Your task to perform on an android device: Show me productivity apps on the Play Store Image 0: 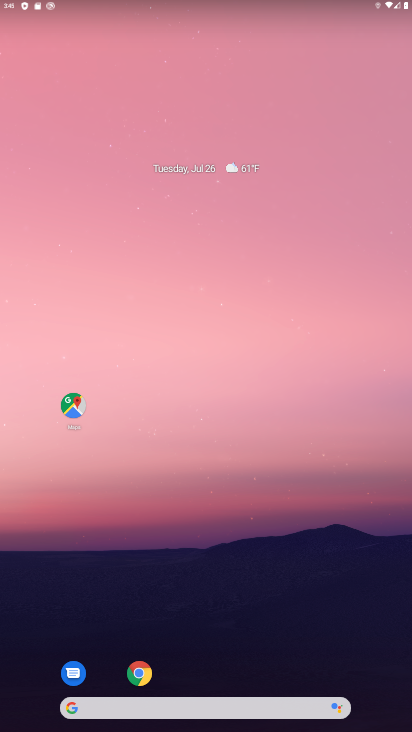
Step 0: press home button
Your task to perform on an android device: Show me productivity apps on the Play Store Image 1: 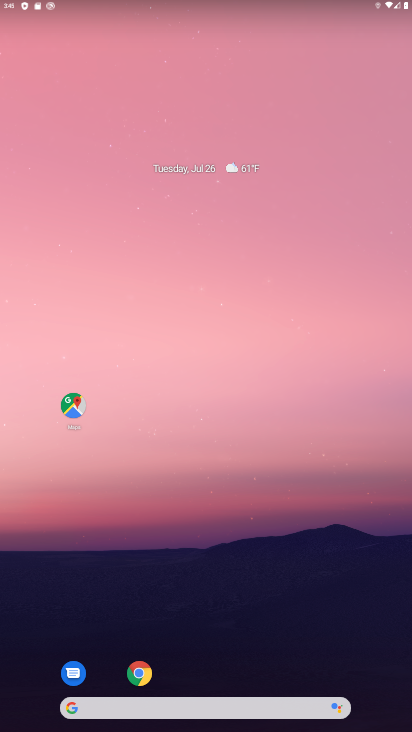
Step 1: drag from (193, 680) to (188, 69)
Your task to perform on an android device: Show me productivity apps on the Play Store Image 2: 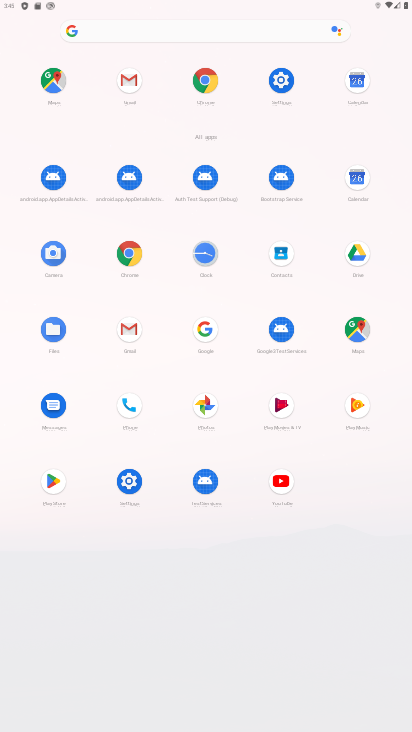
Step 2: click (47, 480)
Your task to perform on an android device: Show me productivity apps on the Play Store Image 3: 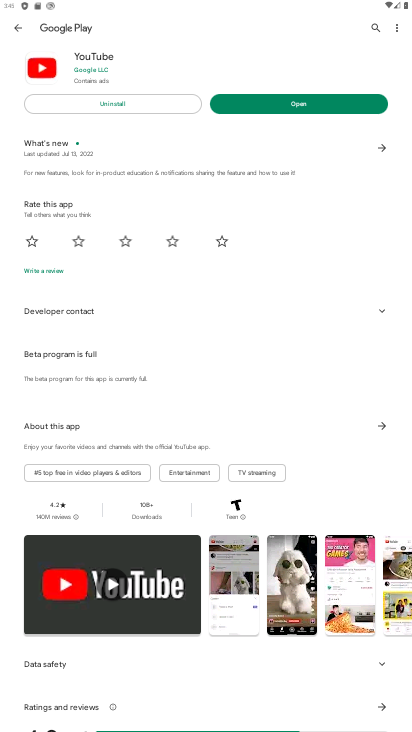
Step 3: click (120, 96)
Your task to perform on an android device: Show me productivity apps on the Play Store Image 4: 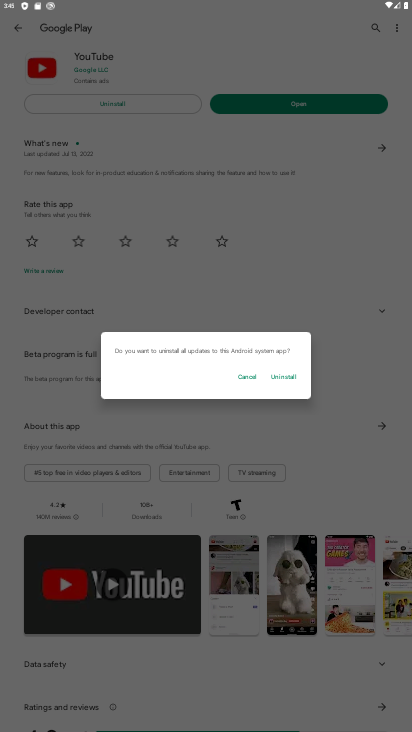
Step 4: click (242, 377)
Your task to perform on an android device: Show me productivity apps on the Play Store Image 5: 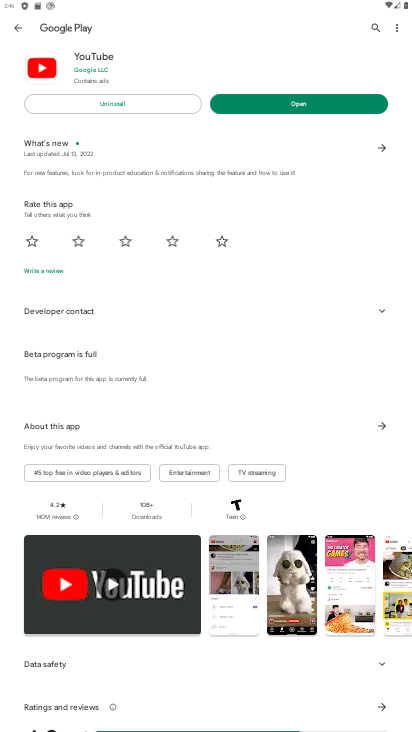
Step 5: click (17, 24)
Your task to perform on an android device: Show me productivity apps on the Play Store Image 6: 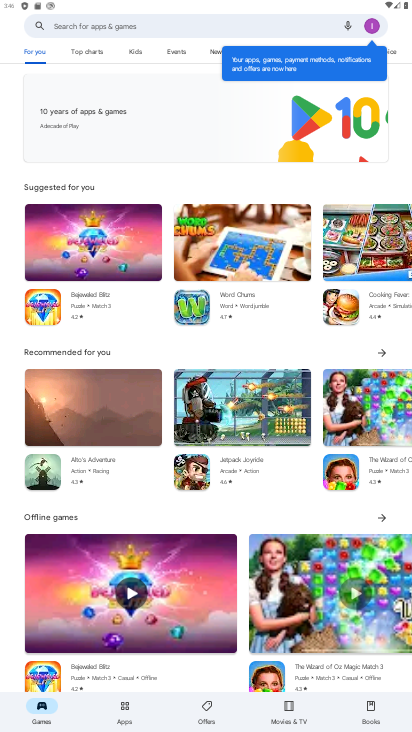
Step 6: click (117, 697)
Your task to perform on an android device: Show me productivity apps on the Play Store Image 7: 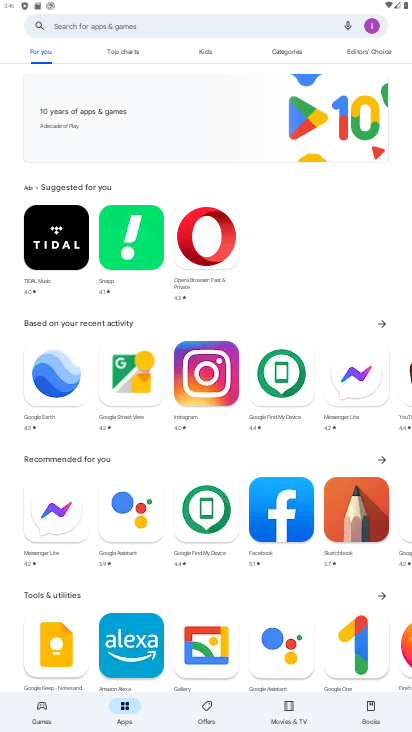
Step 7: click (285, 49)
Your task to perform on an android device: Show me productivity apps on the Play Store Image 8: 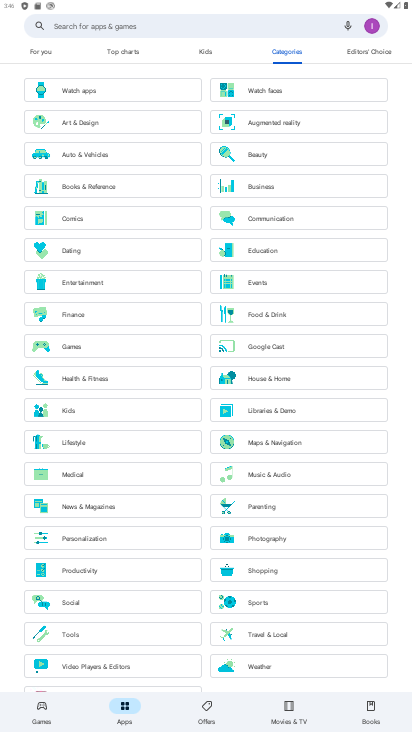
Step 8: click (74, 568)
Your task to perform on an android device: Show me productivity apps on the Play Store Image 9: 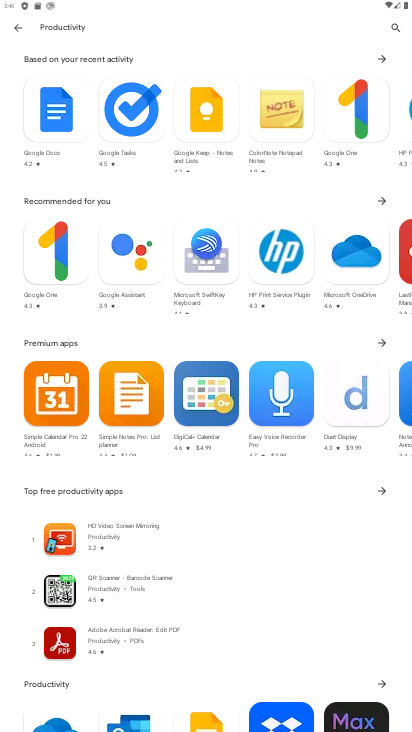
Step 9: task complete